Your task to perform on an android device: toggle sleep mode Image 0: 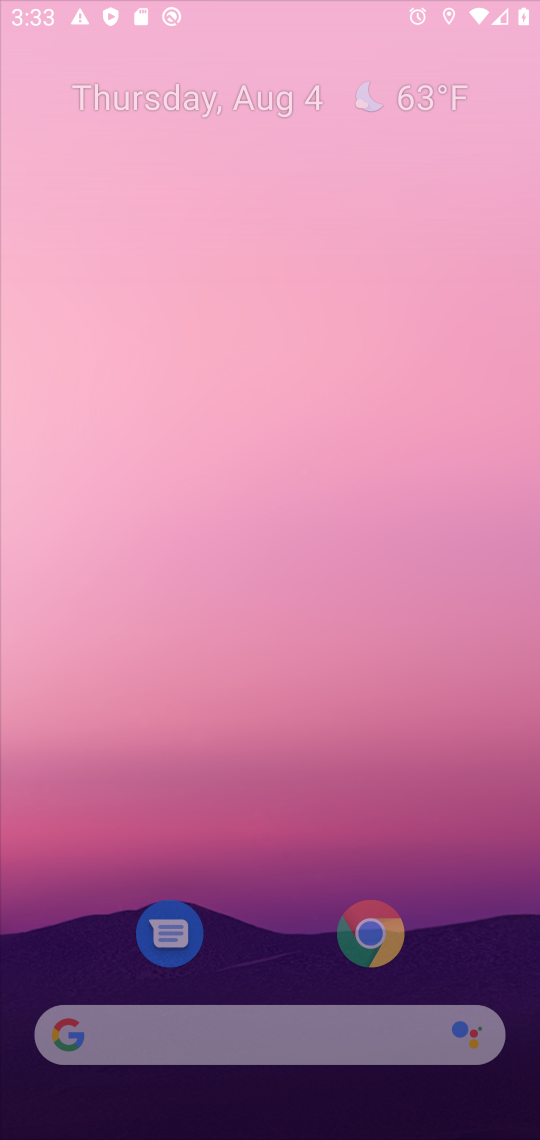
Step 0: press home button
Your task to perform on an android device: toggle sleep mode Image 1: 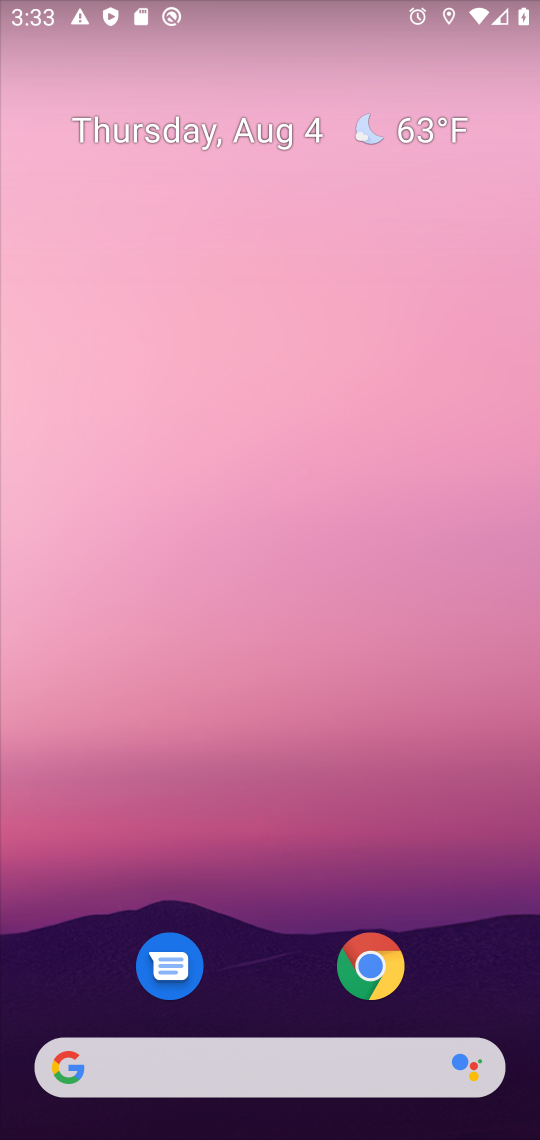
Step 1: press home button
Your task to perform on an android device: toggle sleep mode Image 2: 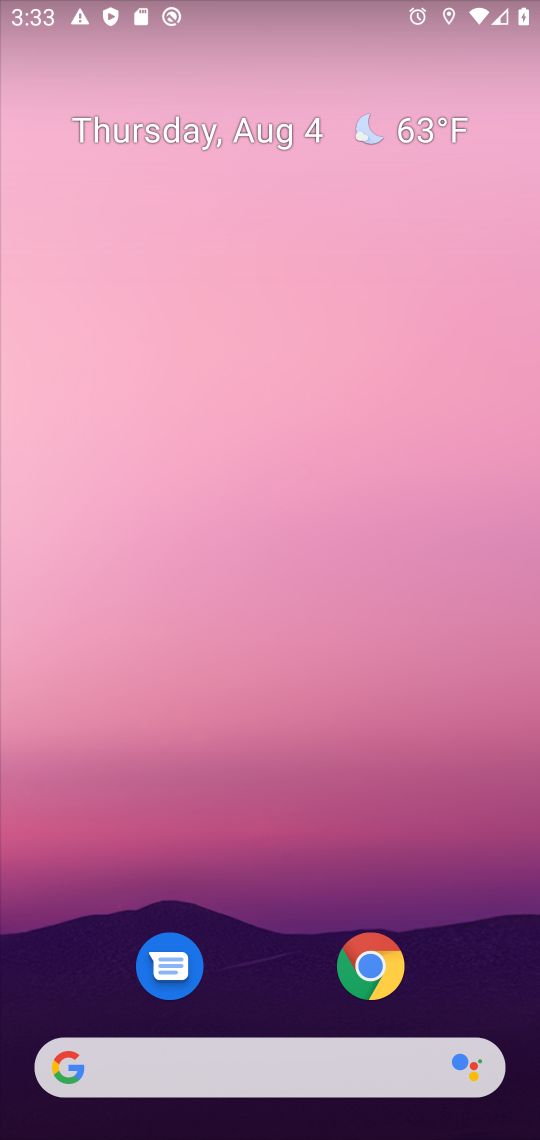
Step 2: drag from (285, 998) to (328, 332)
Your task to perform on an android device: toggle sleep mode Image 3: 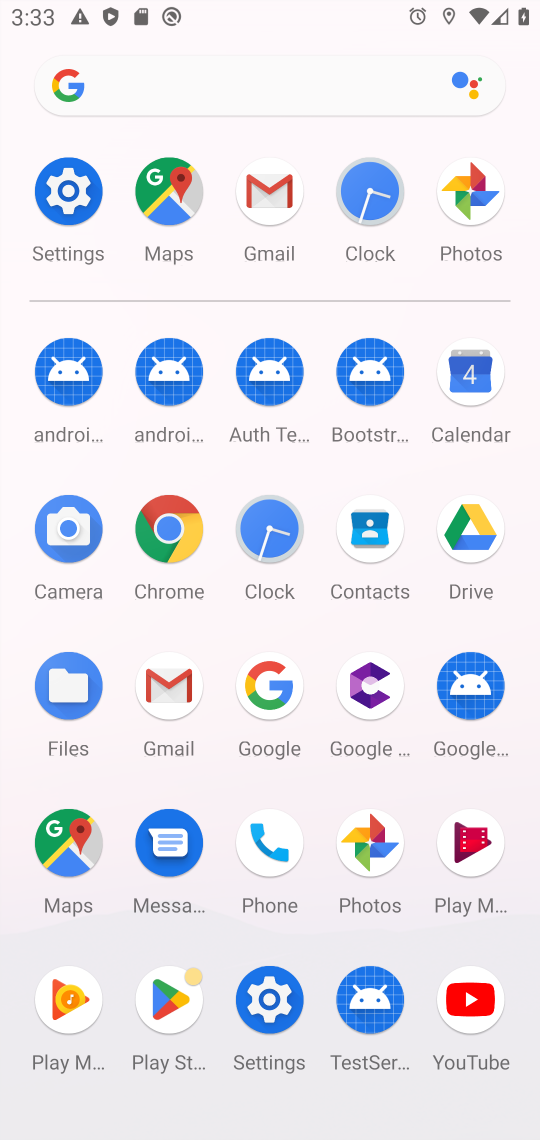
Step 3: click (59, 200)
Your task to perform on an android device: toggle sleep mode Image 4: 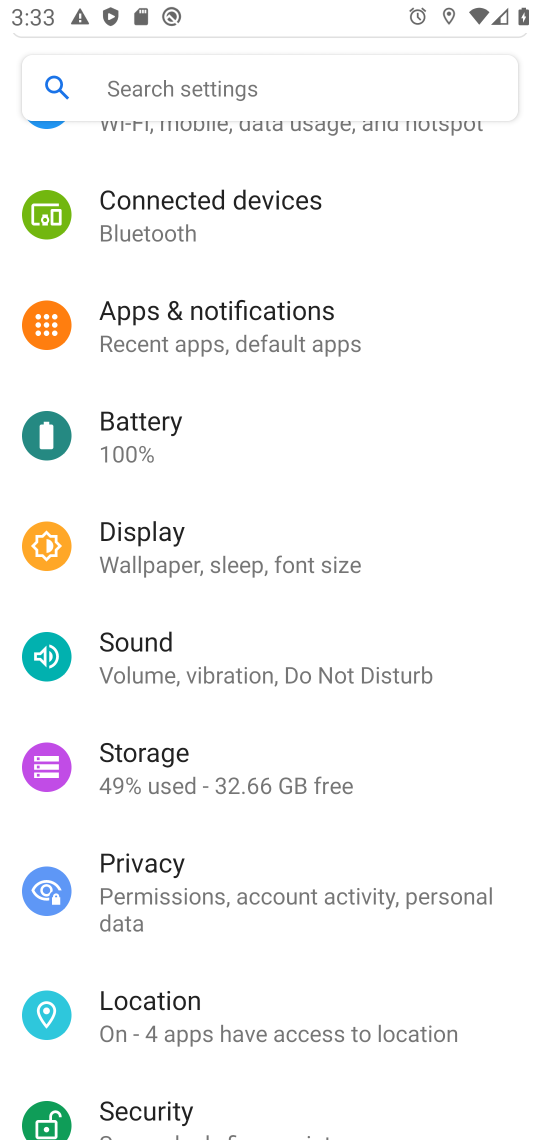
Step 4: click (159, 548)
Your task to perform on an android device: toggle sleep mode Image 5: 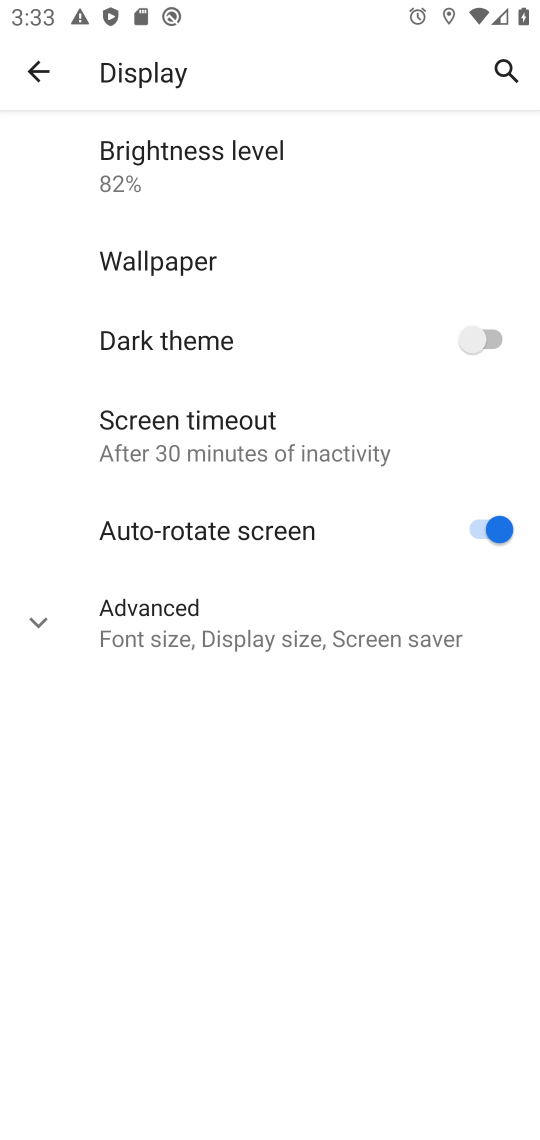
Step 5: task complete